Your task to perform on an android device: open a new tab in the chrome app Image 0: 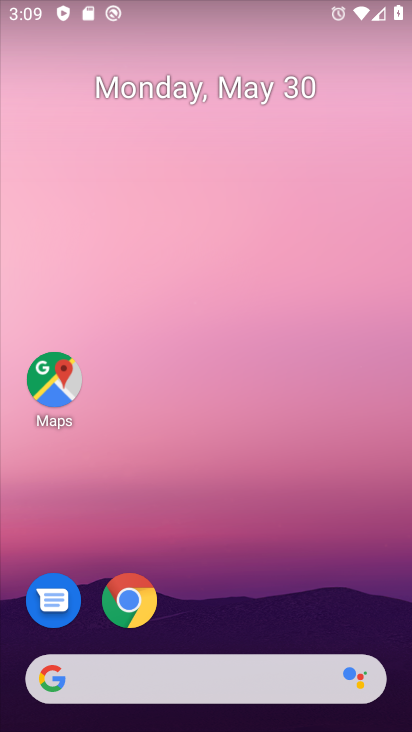
Step 0: click (129, 609)
Your task to perform on an android device: open a new tab in the chrome app Image 1: 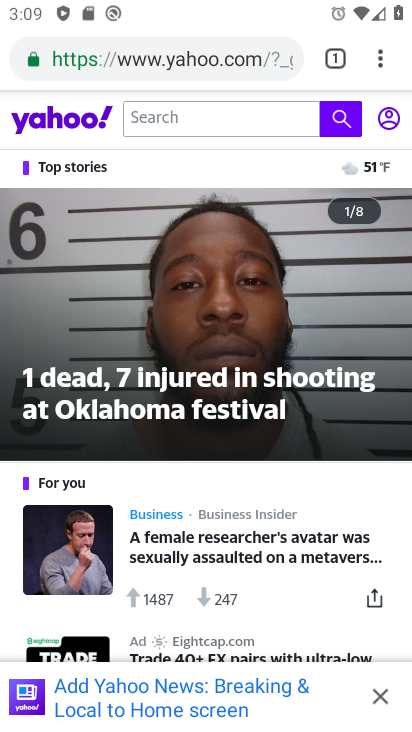
Step 1: click (380, 65)
Your task to perform on an android device: open a new tab in the chrome app Image 2: 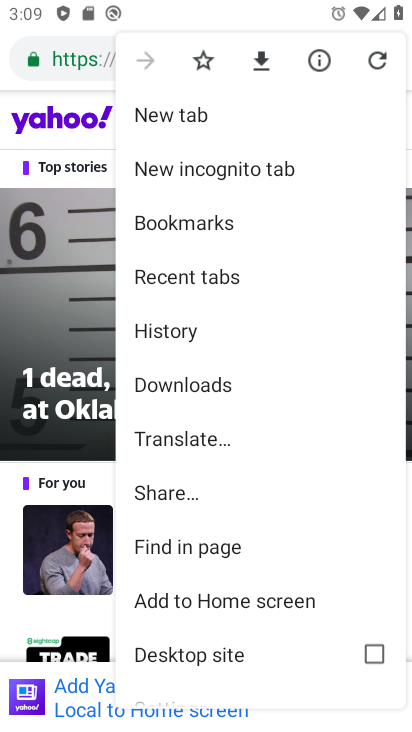
Step 2: click (173, 112)
Your task to perform on an android device: open a new tab in the chrome app Image 3: 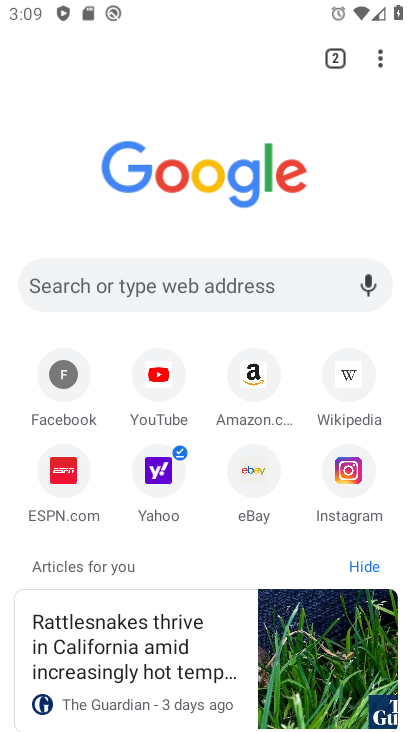
Step 3: task complete